Your task to perform on an android device: turn off location Image 0: 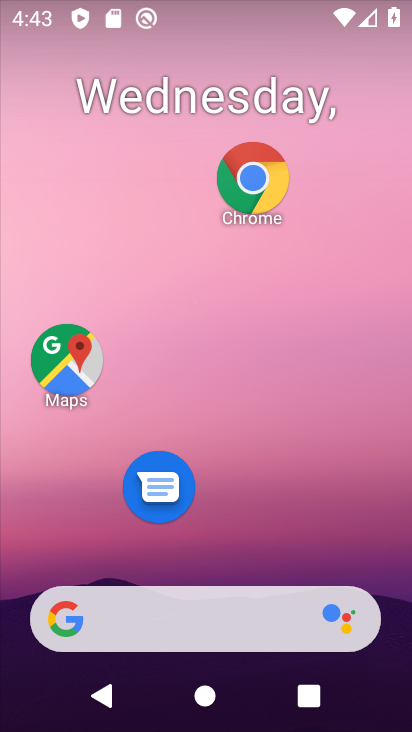
Step 0: press home button
Your task to perform on an android device: turn off location Image 1: 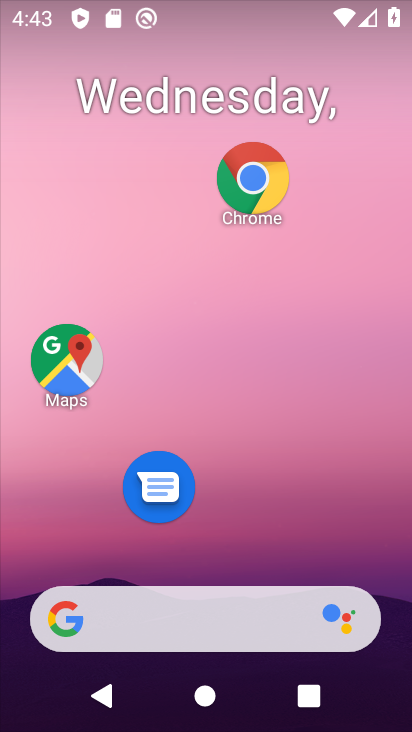
Step 1: drag from (279, 516) to (262, 87)
Your task to perform on an android device: turn off location Image 2: 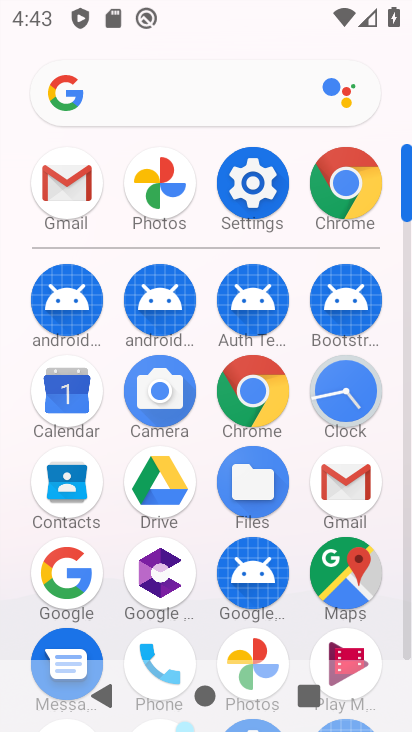
Step 2: click (257, 178)
Your task to perform on an android device: turn off location Image 3: 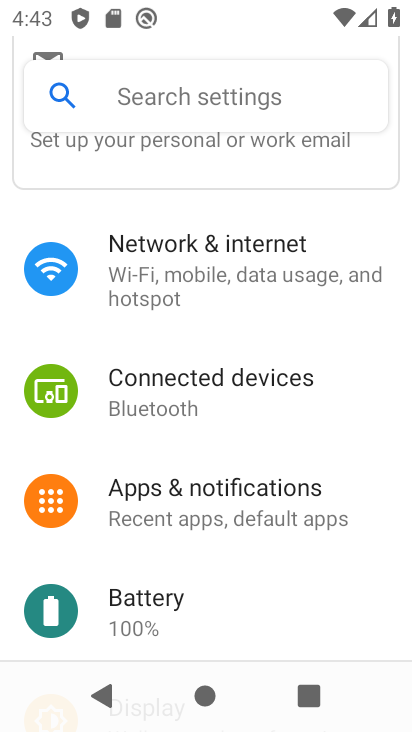
Step 3: drag from (268, 527) to (266, 239)
Your task to perform on an android device: turn off location Image 4: 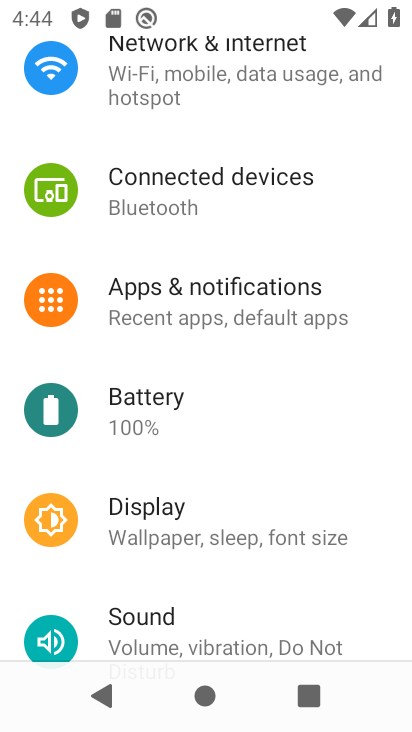
Step 4: drag from (234, 534) to (188, 211)
Your task to perform on an android device: turn off location Image 5: 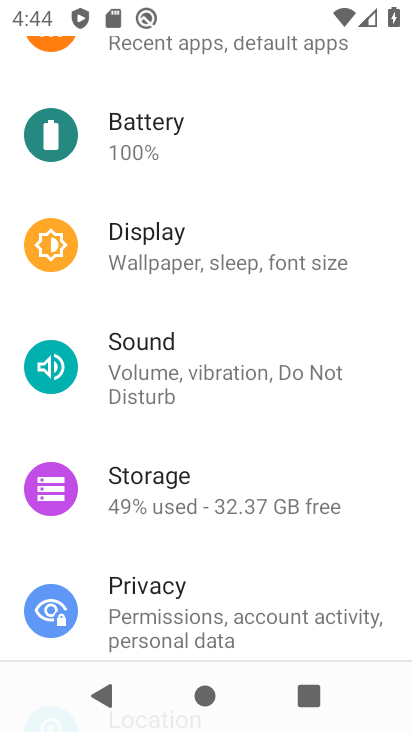
Step 5: drag from (200, 510) to (206, 246)
Your task to perform on an android device: turn off location Image 6: 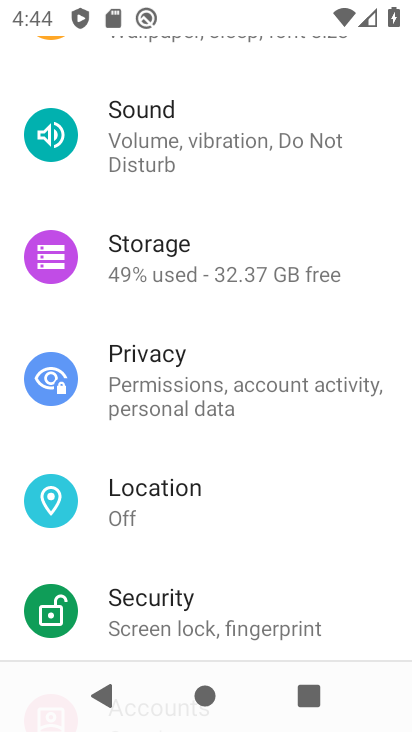
Step 6: click (165, 489)
Your task to perform on an android device: turn off location Image 7: 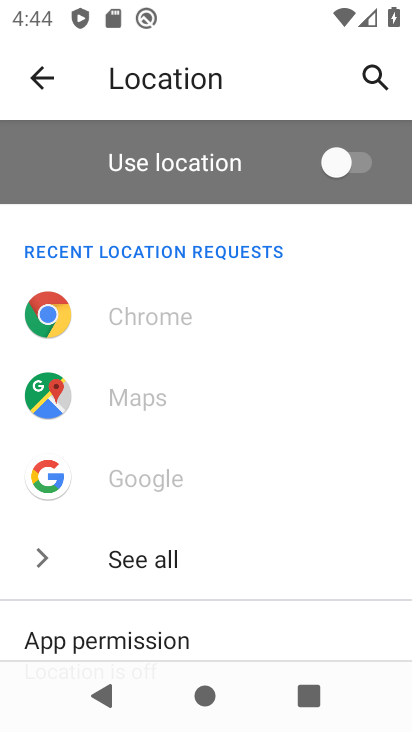
Step 7: task complete